Your task to perform on an android device: change the clock display to digital Image 0: 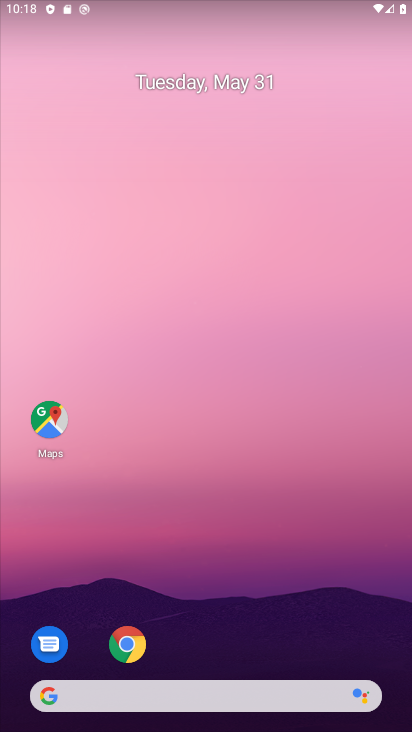
Step 0: drag from (208, 626) to (394, 8)
Your task to perform on an android device: change the clock display to digital Image 1: 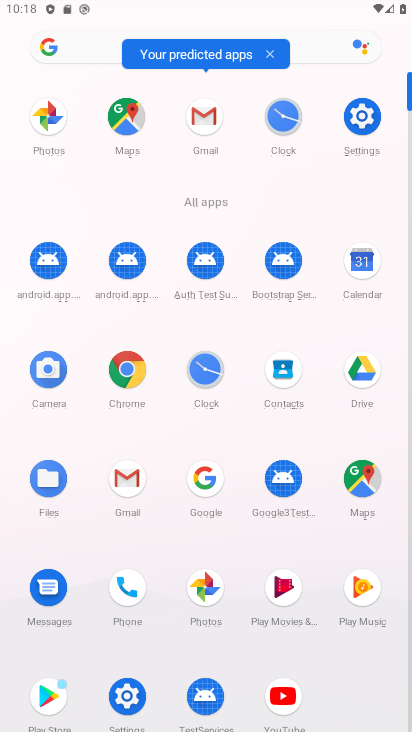
Step 1: click (191, 370)
Your task to perform on an android device: change the clock display to digital Image 2: 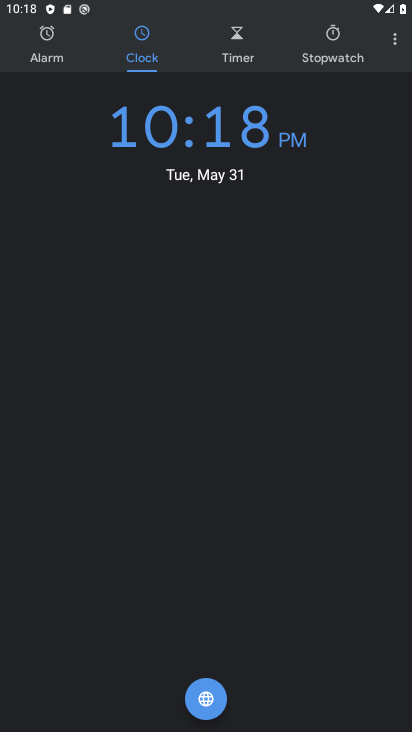
Step 2: click (398, 40)
Your task to perform on an android device: change the clock display to digital Image 3: 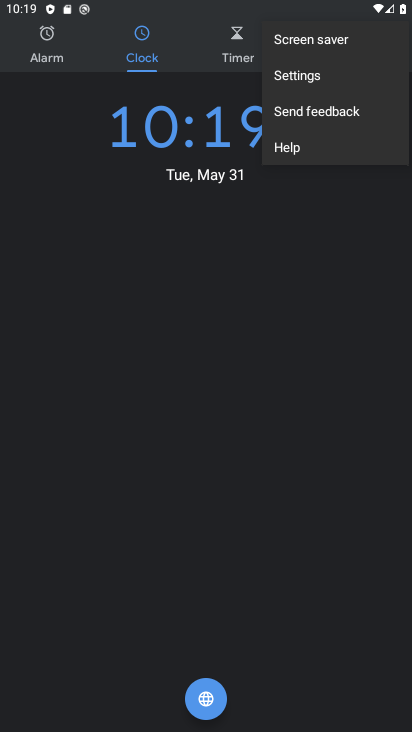
Step 3: click (324, 84)
Your task to perform on an android device: change the clock display to digital Image 4: 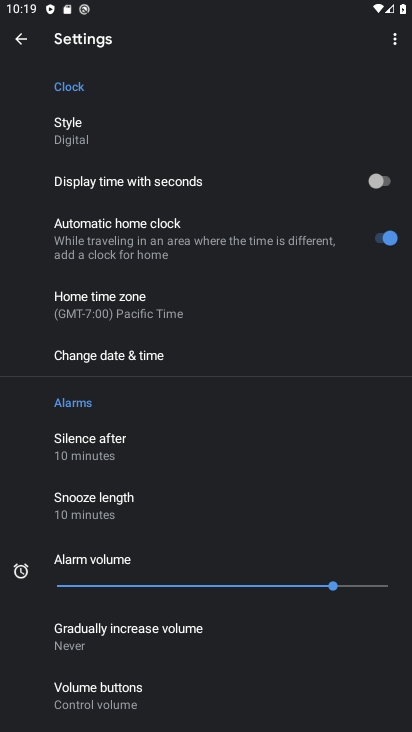
Step 4: task complete